Your task to perform on an android device: stop showing notifications on the lock screen Image 0: 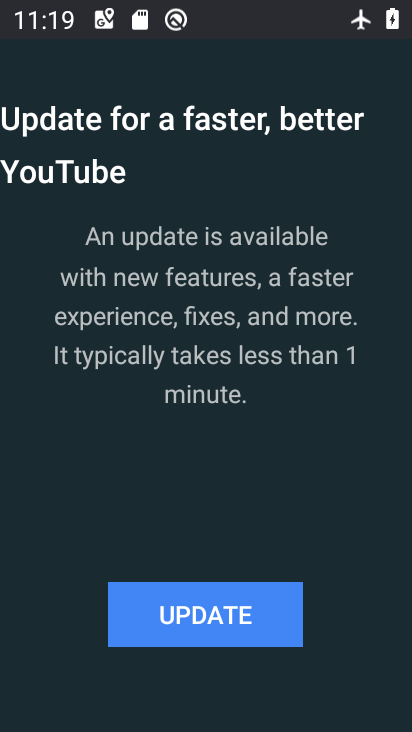
Step 0: press home button
Your task to perform on an android device: stop showing notifications on the lock screen Image 1: 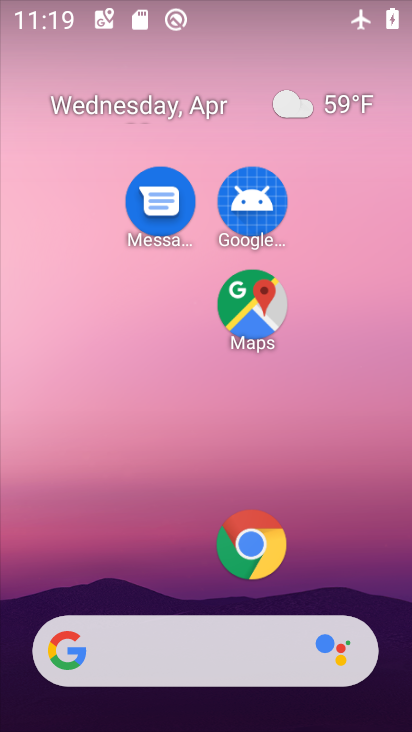
Step 1: drag from (174, 488) to (174, 176)
Your task to perform on an android device: stop showing notifications on the lock screen Image 2: 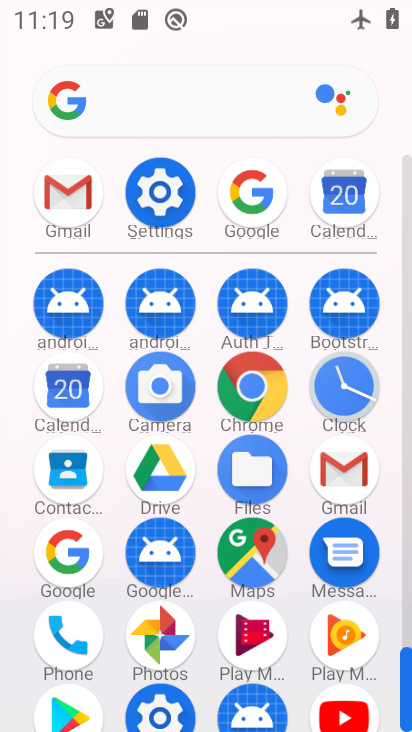
Step 2: click (171, 199)
Your task to perform on an android device: stop showing notifications on the lock screen Image 3: 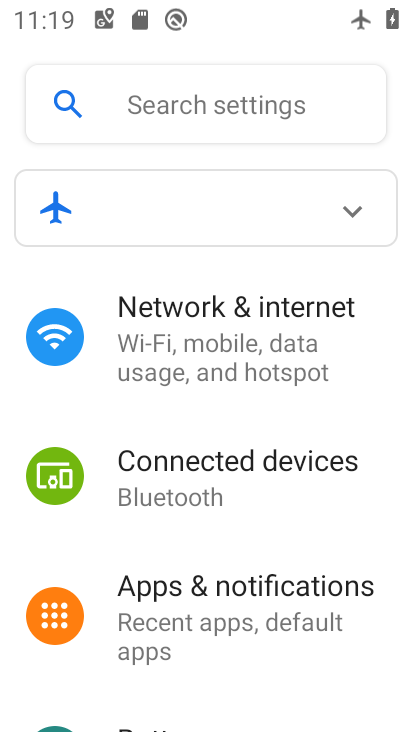
Step 3: click (206, 602)
Your task to perform on an android device: stop showing notifications on the lock screen Image 4: 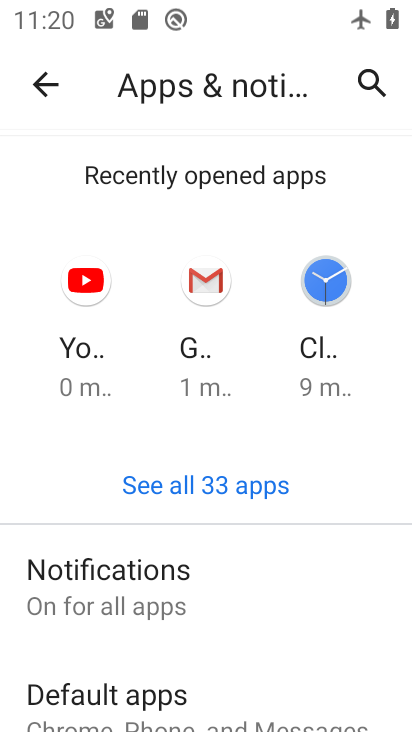
Step 4: drag from (219, 661) to (233, 221)
Your task to perform on an android device: stop showing notifications on the lock screen Image 5: 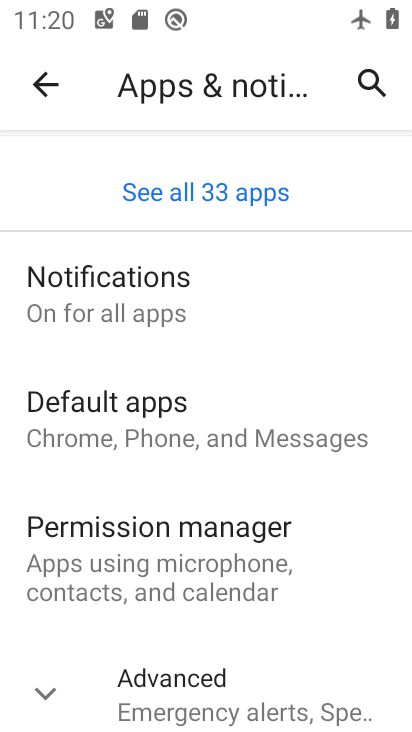
Step 5: click (117, 306)
Your task to perform on an android device: stop showing notifications on the lock screen Image 6: 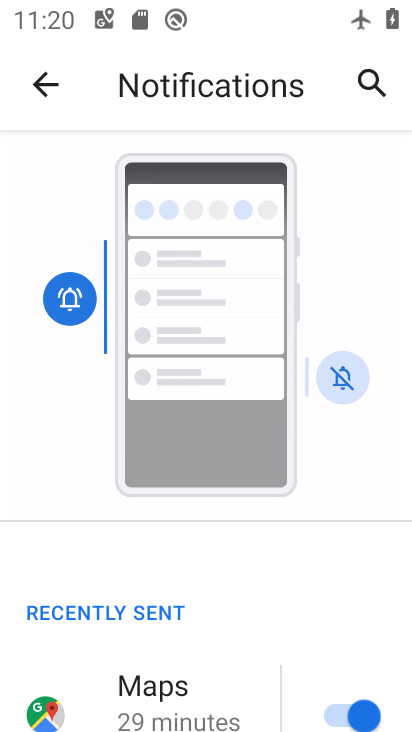
Step 6: drag from (264, 670) to (263, 204)
Your task to perform on an android device: stop showing notifications on the lock screen Image 7: 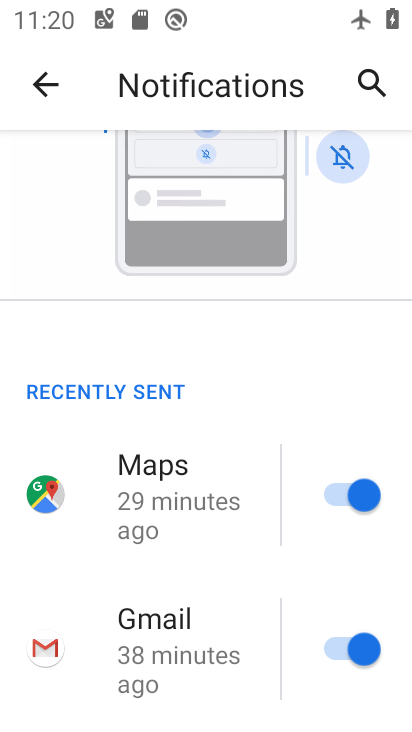
Step 7: drag from (255, 507) to (262, 280)
Your task to perform on an android device: stop showing notifications on the lock screen Image 8: 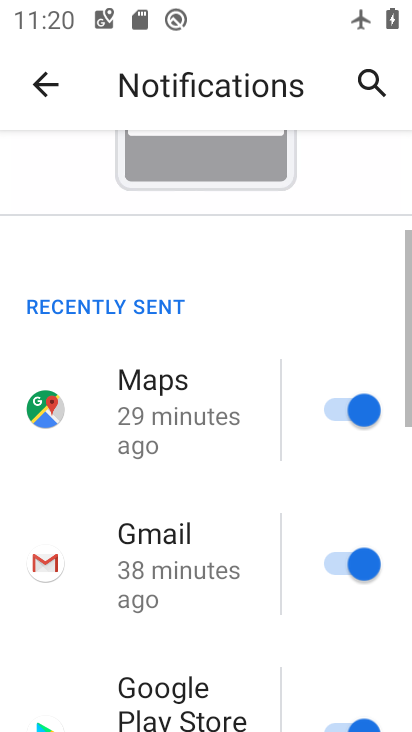
Step 8: drag from (217, 621) to (248, 367)
Your task to perform on an android device: stop showing notifications on the lock screen Image 9: 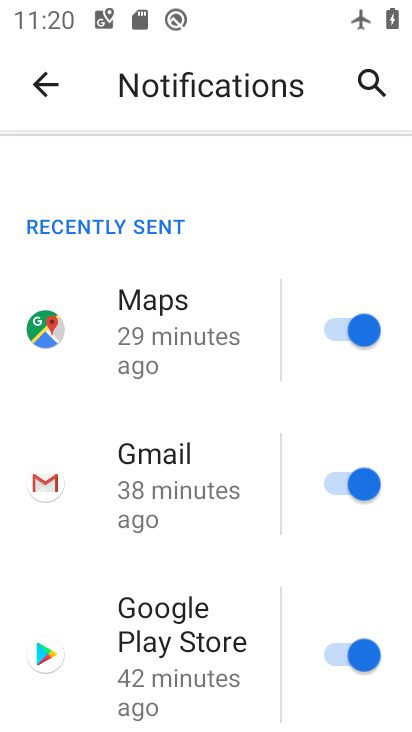
Step 9: drag from (221, 621) to (229, 246)
Your task to perform on an android device: stop showing notifications on the lock screen Image 10: 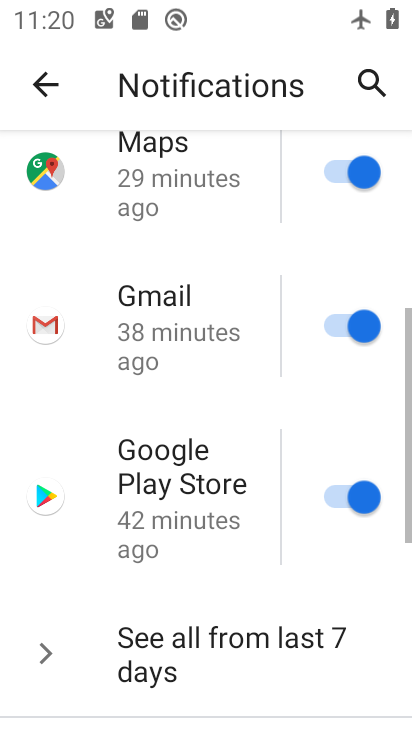
Step 10: drag from (209, 624) to (209, 181)
Your task to perform on an android device: stop showing notifications on the lock screen Image 11: 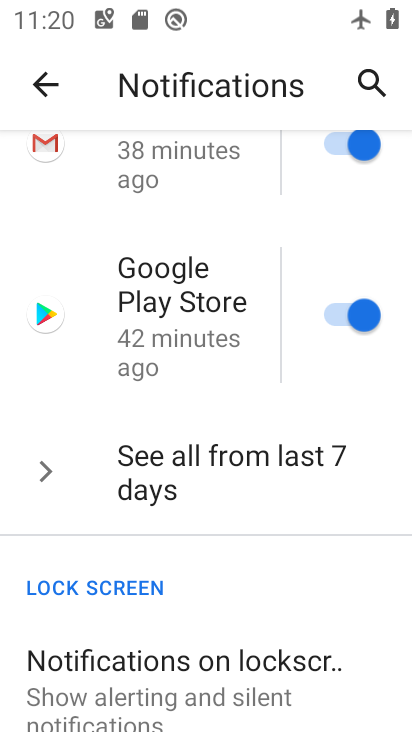
Step 11: click (194, 656)
Your task to perform on an android device: stop showing notifications on the lock screen Image 12: 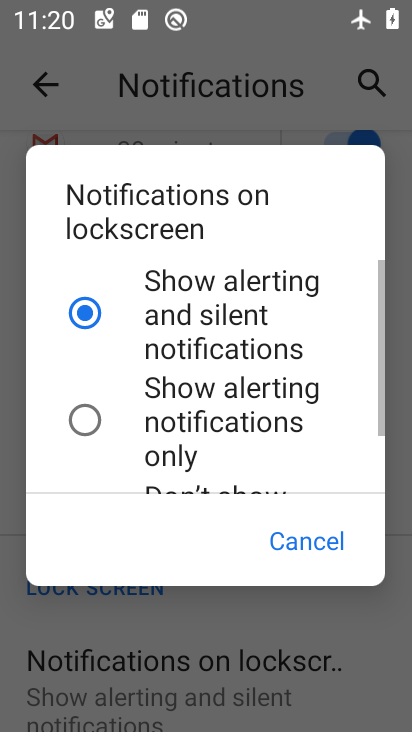
Step 12: drag from (149, 443) to (153, 274)
Your task to perform on an android device: stop showing notifications on the lock screen Image 13: 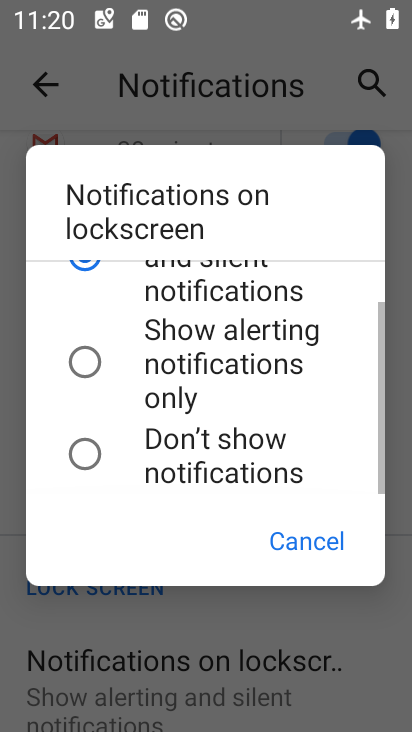
Step 13: click (129, 458)
Your task to perform on an android device: stop showing notifications on the lock screen Image 14: 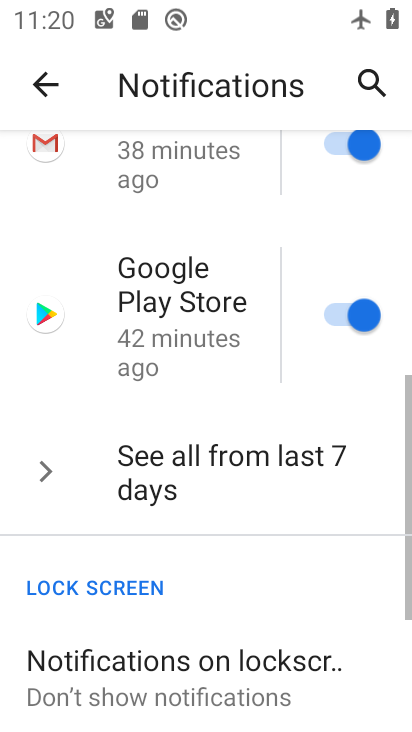
Step 14: task complete